Your task to perform on an android device: make emails show in primary in the gmail app Image 0: 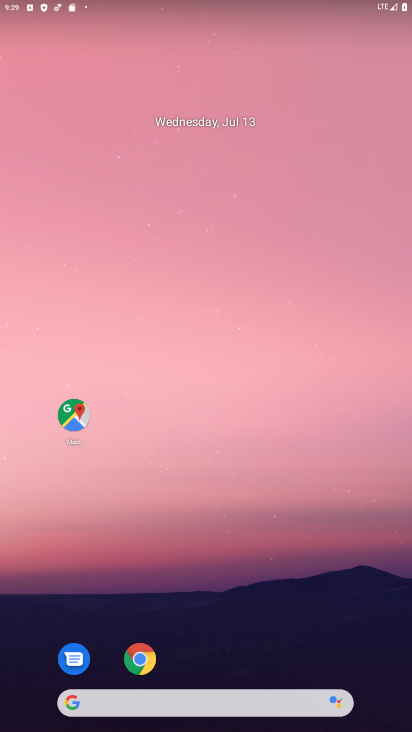
Step 0: drag from (359, 668) to (370, 182)
Your task to perform on an android device: make emails show in primary in the gmail app Image 1: 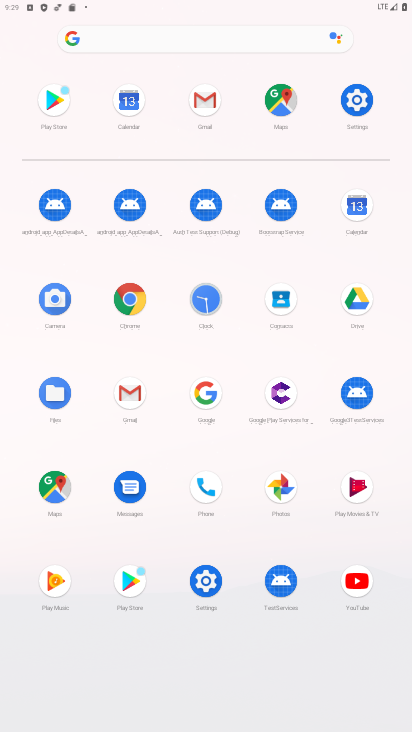
Step 1: click (128, 395)
Your task to perform on an android device: make emails show in primary in the gmail app Image 2: 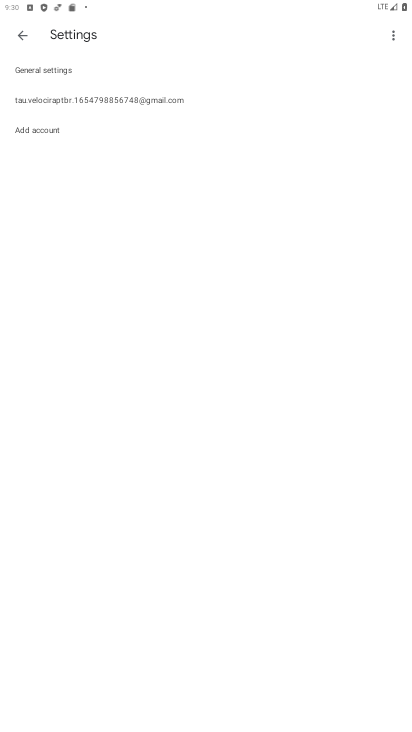
Step 2: click (62, 101)
Your task to perform on an android device: make emails show in primary in the gmail app Image 3: 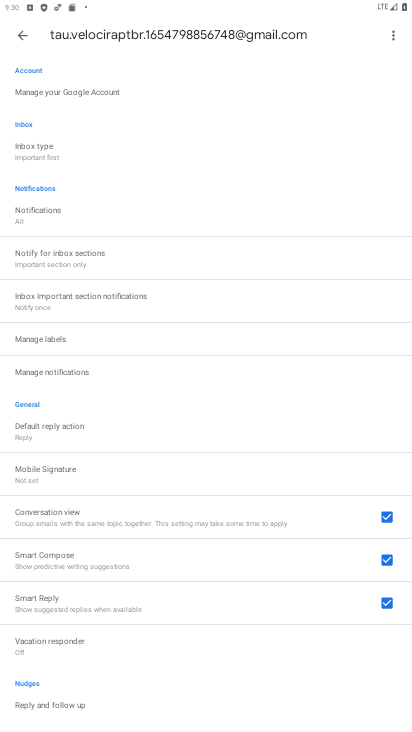
Step 3: click (37, 145)
Your task to perform on an android device: make emails show in primary in the gmail app Image 4: 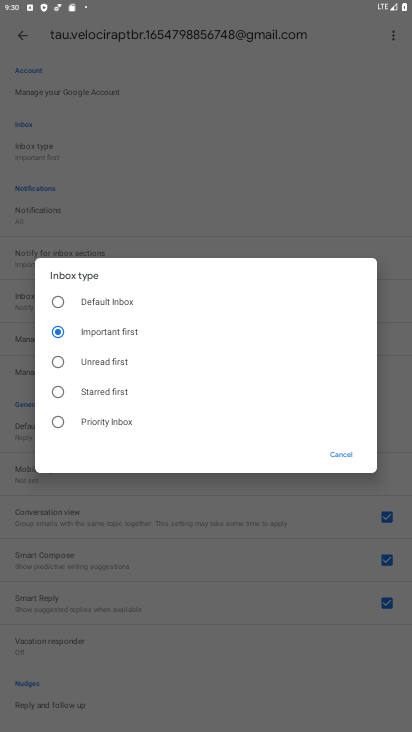
Step 4: click (58, 299)
Your task to perform on an android device: make emails show in primary in the gmail app Image 5: 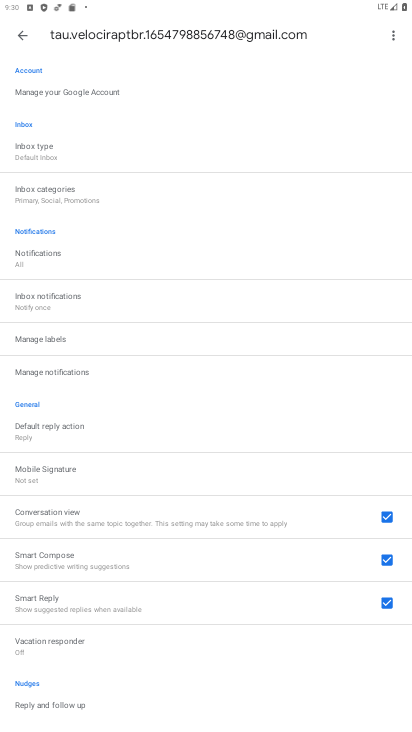
Step 5: click (40, 191)
Your task to perform on an android device: make emails show in primary in the gmail app Image 6: 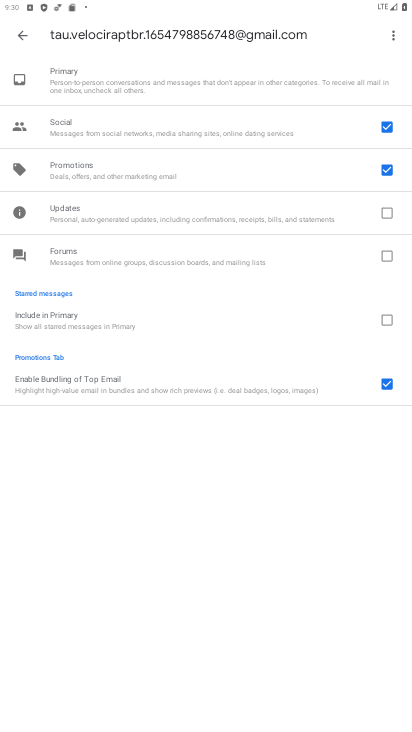
Step 6: click (384, 129)
Your task to perform on an android device: make emails show in primary in the gmail app Image 7: 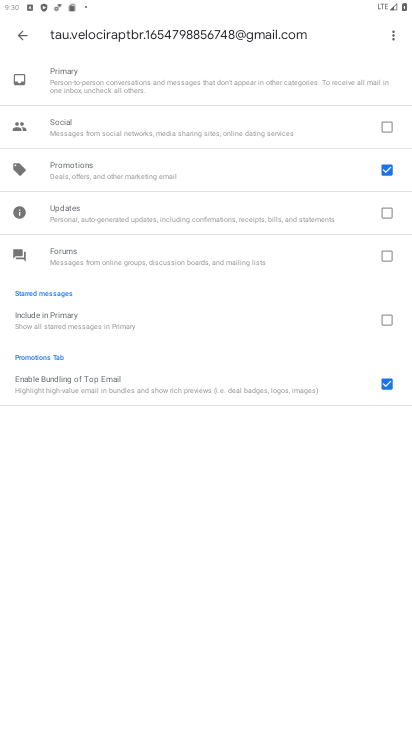
Step 7: click (382, 168)
Your task to perform on an android device: make emails show in primary in the gmail app Image 8: 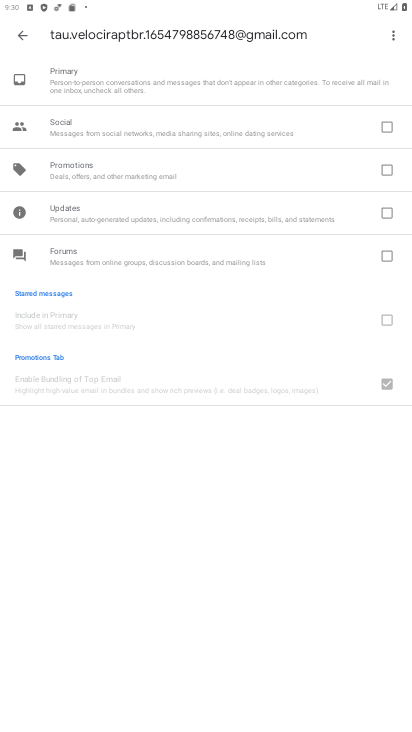
Step 8: task complete